Your task to perform on an android device: open a new tab in the chrome app Image 0: 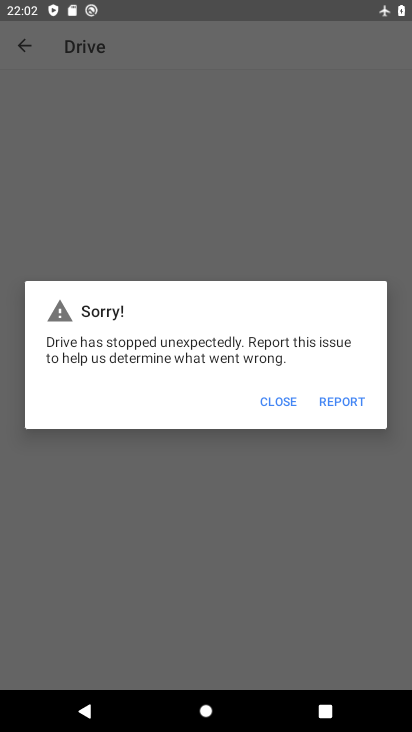
Step 0: press home button
Your task to perform on an android device: open a new tab in the chrome app Image 1: 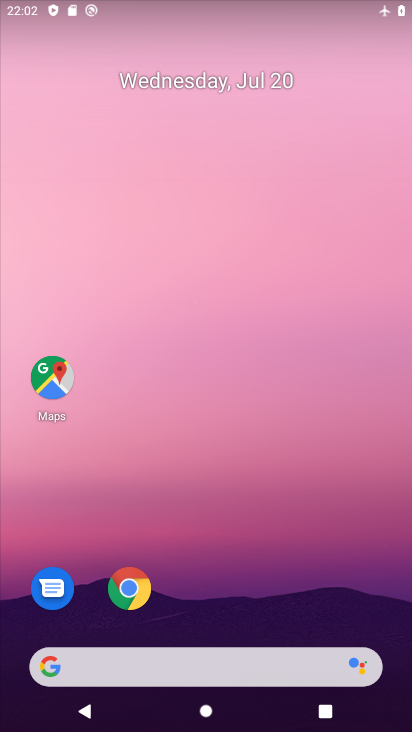
Step 1: click (127, 588)
Your task to perform on an android device: open a new tab in the chrome app Image 2: 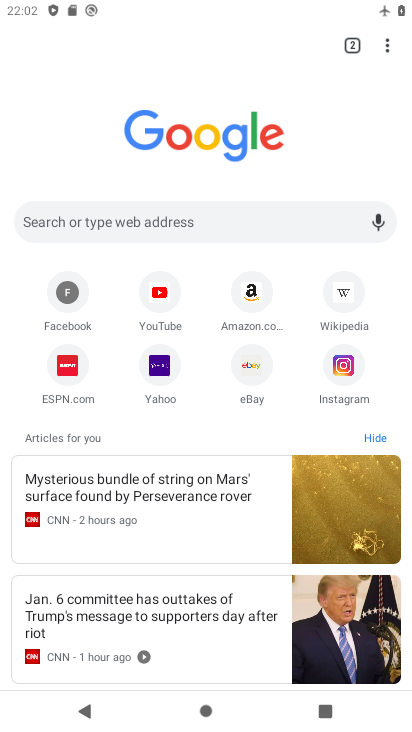
Step 2: click (387, 48)
Your task to perform on an android device: open a new tab in the chrome app Image 3: 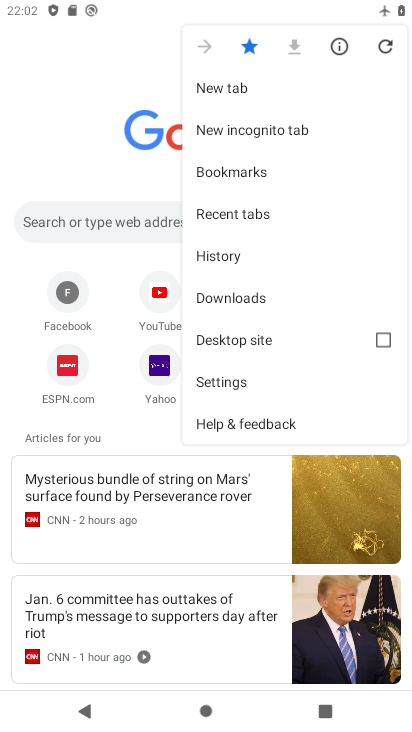
Step 3: click (225, 83)
Your task to perform on an android device: open a new tab in the chrome app Image 4: 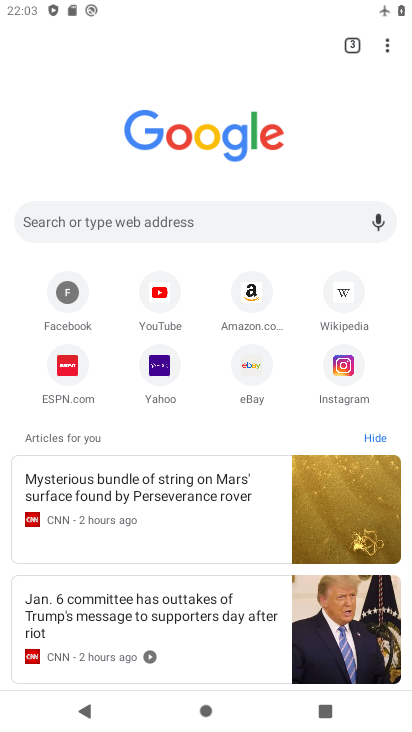
Step 4: task complete